Your task to perform on an android device: change the clock display to show seconds Image 0: 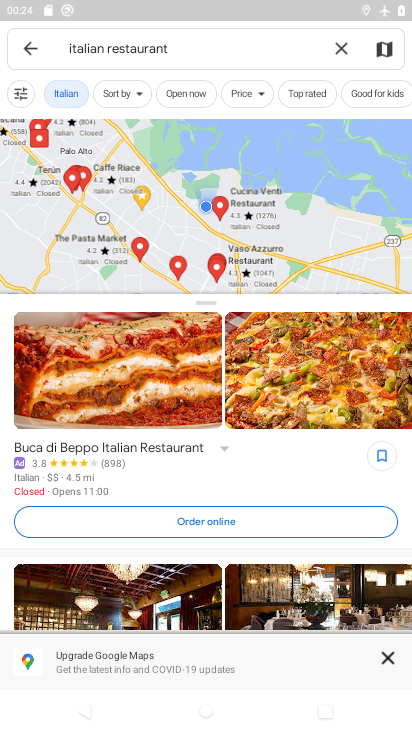
Step 0: press home button
Your task to perform on an android device: change the clock display to show seconds Image 1: 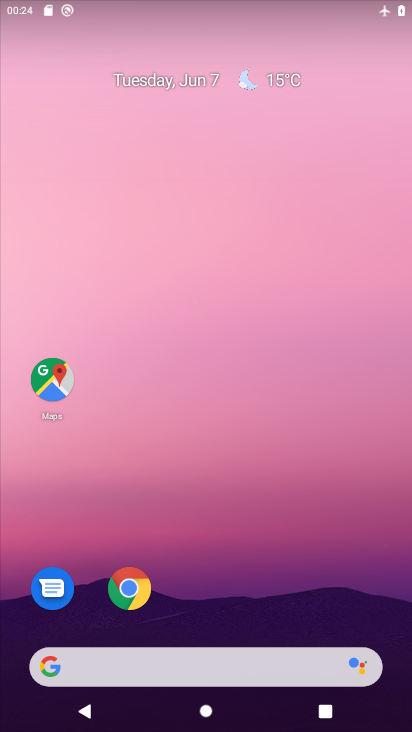
Step 1: drag from (261, 614) to (231, 262)
Your task to perform on an android device: change the clock display to show seconds Image 2: 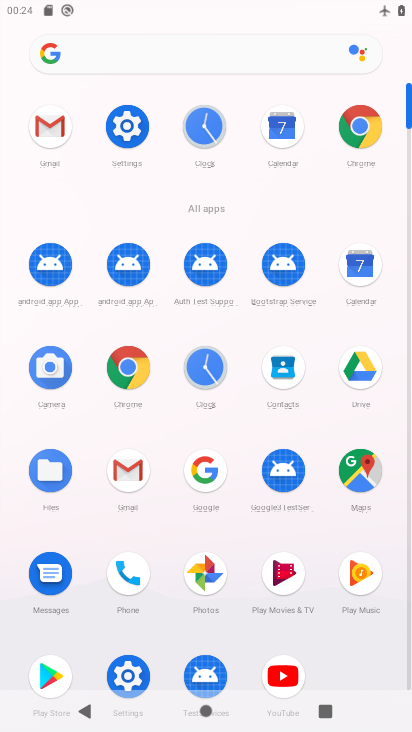
Step 2: click (200, 361)
Your task to perform on an android device: change the clock display to show seconds Image 3: 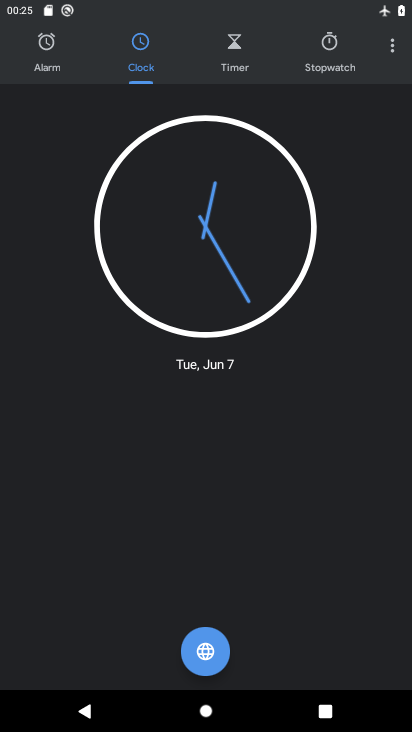
Step 3: click (394, 43)
Your task to perform on an android device: change the clock display to show seconds Image 4: 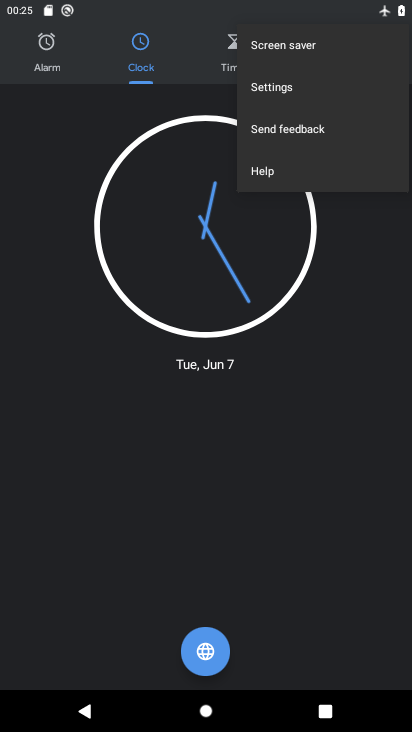
Step 4: click (319, 96)
Your task to perform on an android device: change the clock display to show seconds Image 5: 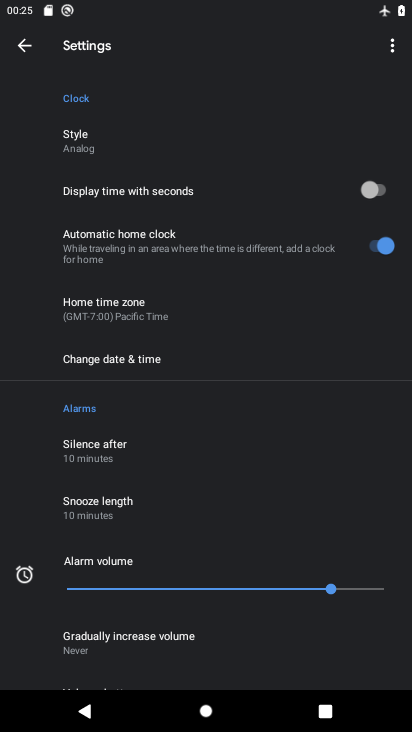
Step 5: click (374, 187)
Your task to perform on an android device: change the clock display to show seconds Image 6: 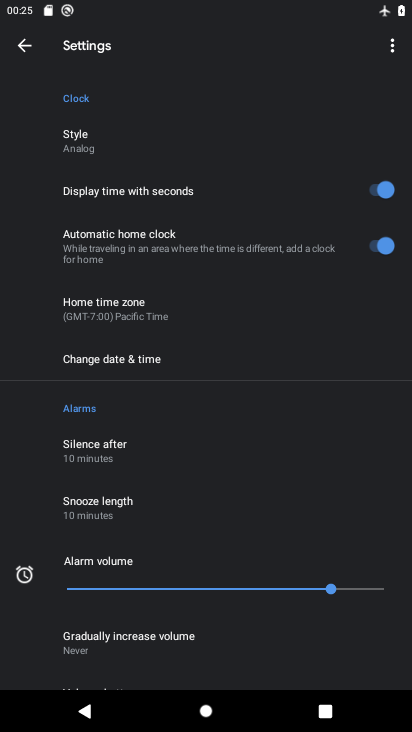
Step 6: task complete